Your task to perform on an android device: Go to display settings Image 0: 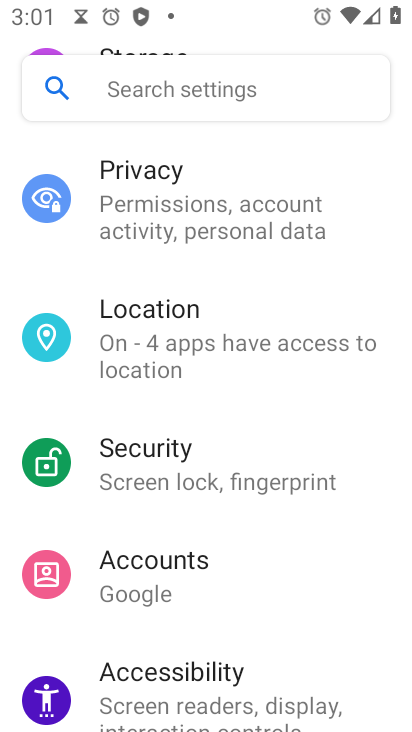
Step 0: drag from (275, 241) to (283, 573)
Your task to perform on an android device: Go to display settings Image 1: 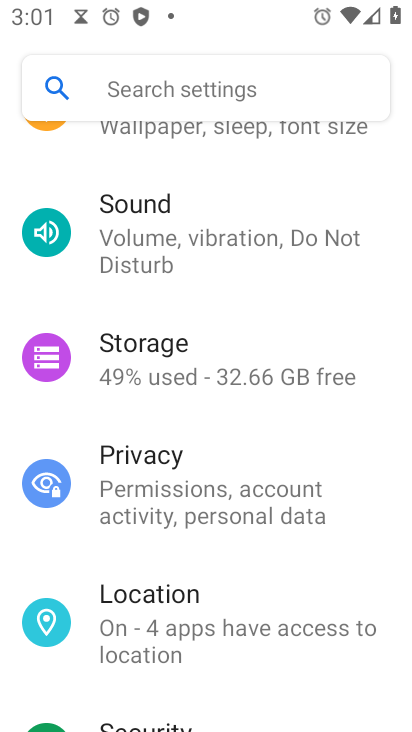
Step 1: drag from (305, 214) to (270, 602)
Your task to perform on an android device: Go to display settings Image 2: 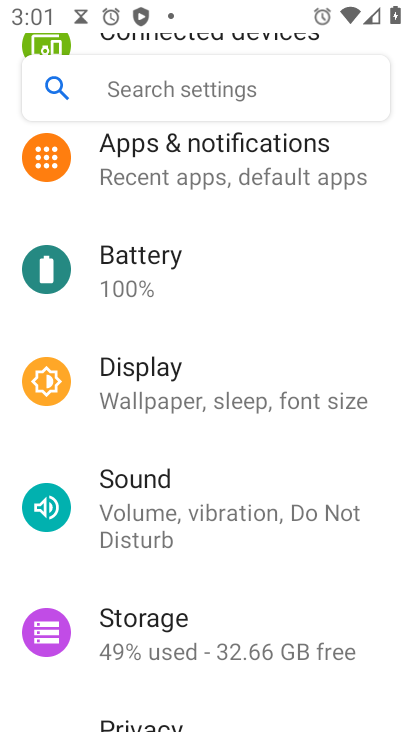
Step 2: click (176, 355)
Your task to perform on an android device: Go to display settings Image 3: 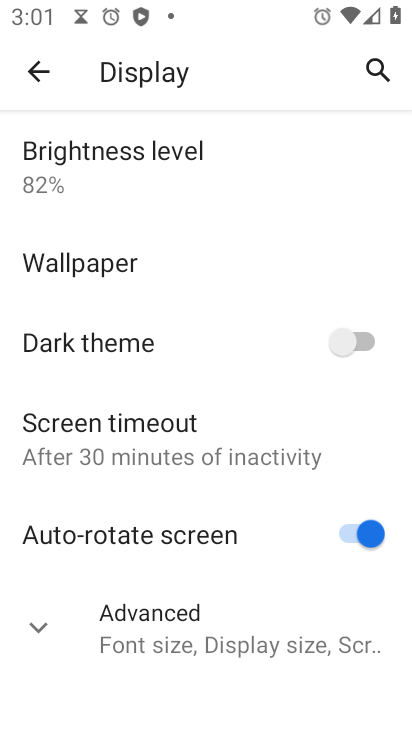
Step 3: click (41, 633)
Your task to perform on an android device: Go to display settings Image 4: 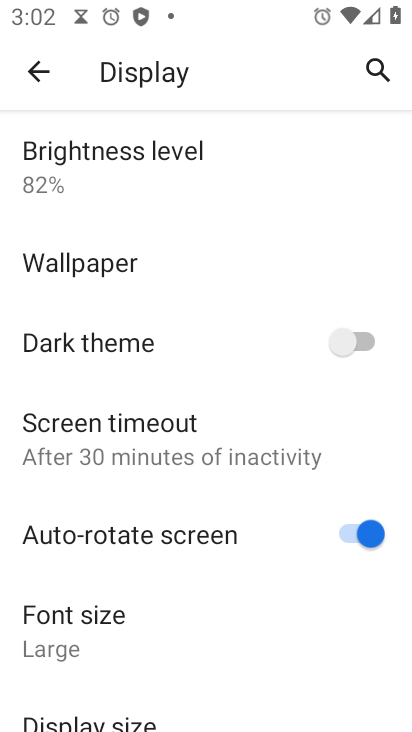
Step 4: task complete